Your task to perform on an android device: turn on bluetooth scan Image 0: 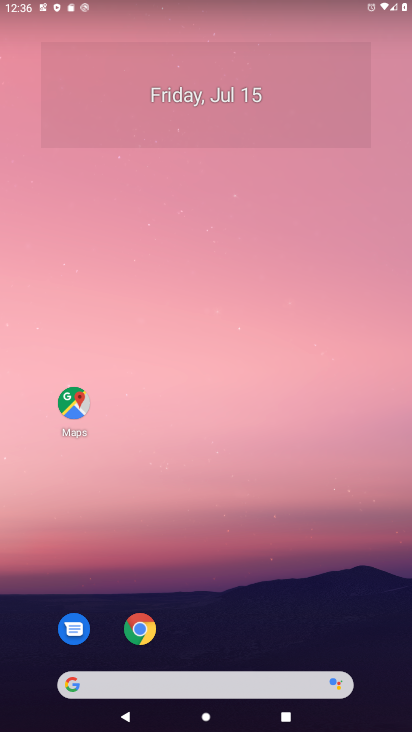
Step 0: press home button
Your task to perform on an android device: turn on bluetooth scan Image 1: 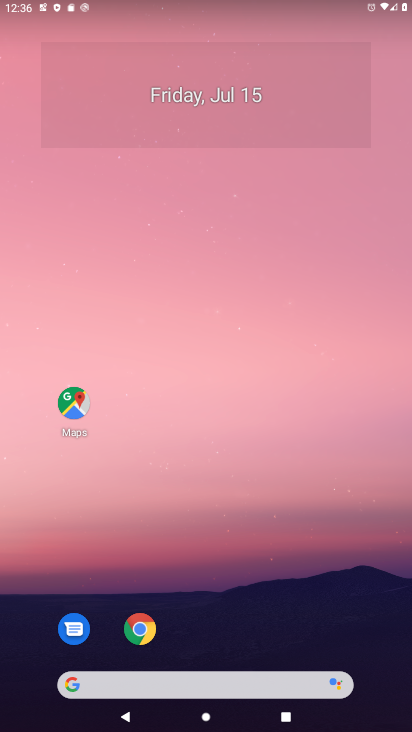
Step 1: drag from (256, 632) to (288, 0)
Your task to perform on an android device: turn on bluetooth scan Image 2: 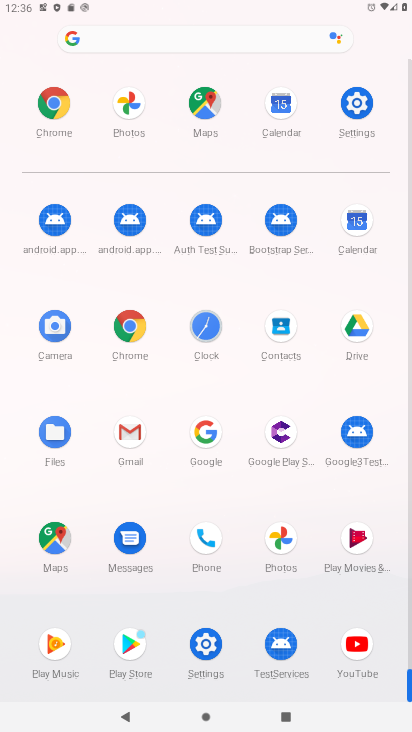
Step 2: click (343, 109)
Your task to perform on an android device: turn on bluetooth scan Image 3: 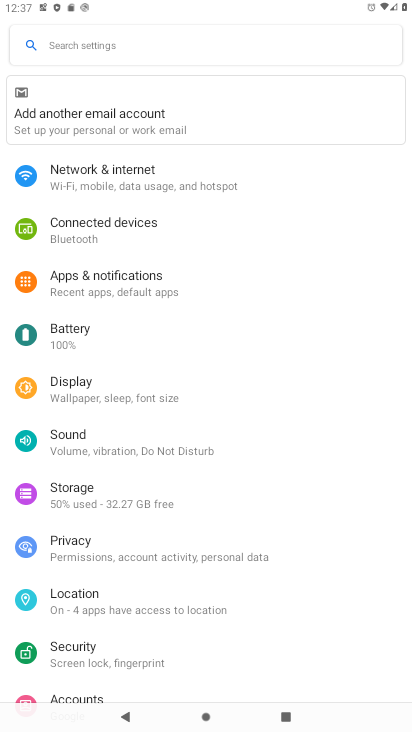
Step 3: click (99, 604)
Your task to perform on an android device: turn on bluetooth scan Image 4: 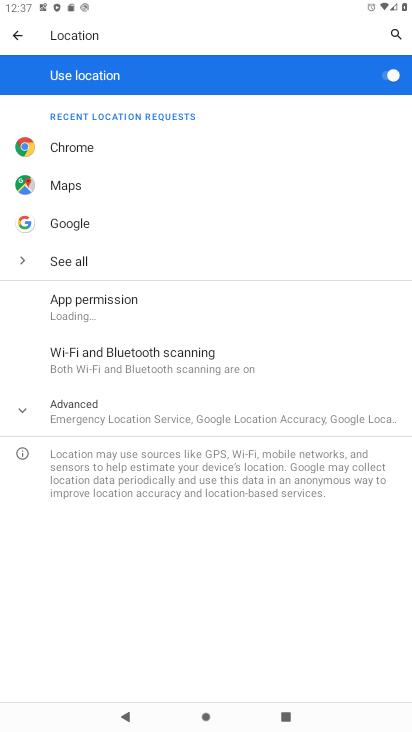
Step 4: click (107, 360)
Your task to perform on an android device: turn on bluetooth scan Image 5: 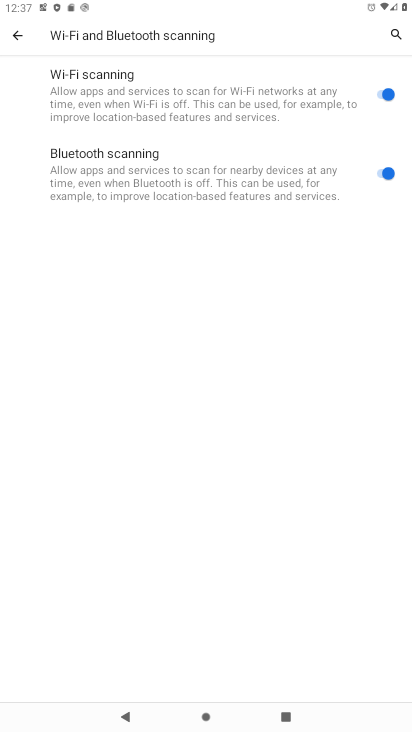
Step 5: task complete